Your task to perform on an android device: turn off picture-in-picture Image 0: 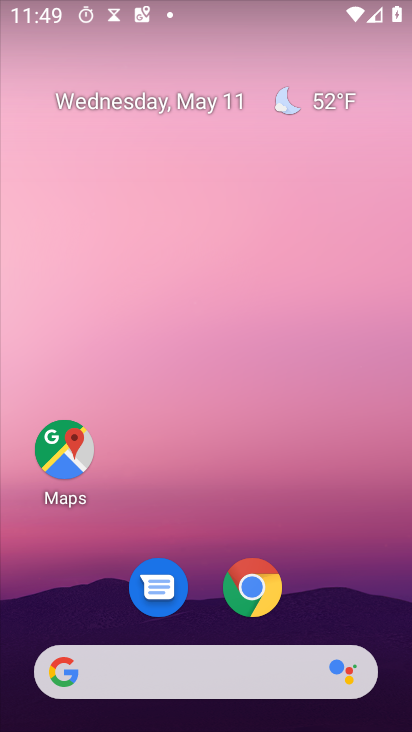
Step 0: drag from (262, 700) to (365, 287)
Your task to perform on an android device: turn off picture-in-picture Image 1: 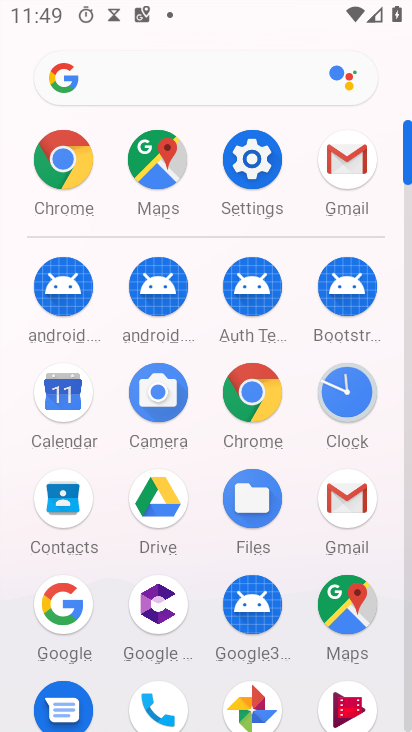
Step 1: click (252, 176)
Your task to perform on an android device: turn off picture-in-picture Image 2: 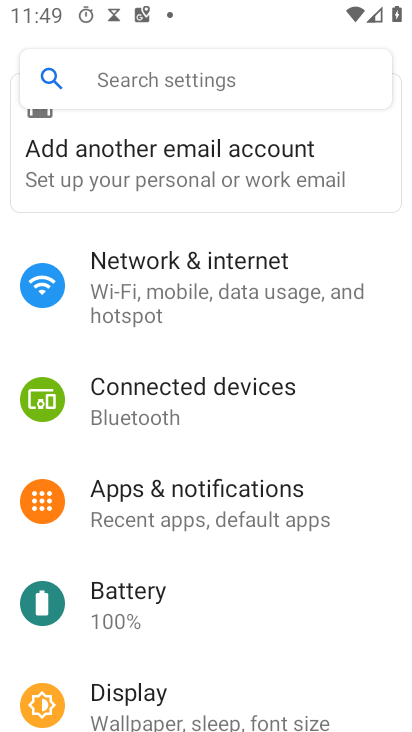
Step 2: click (139, 86)
Your task to perform on an android device: turn off picture-in-picture Image 3: 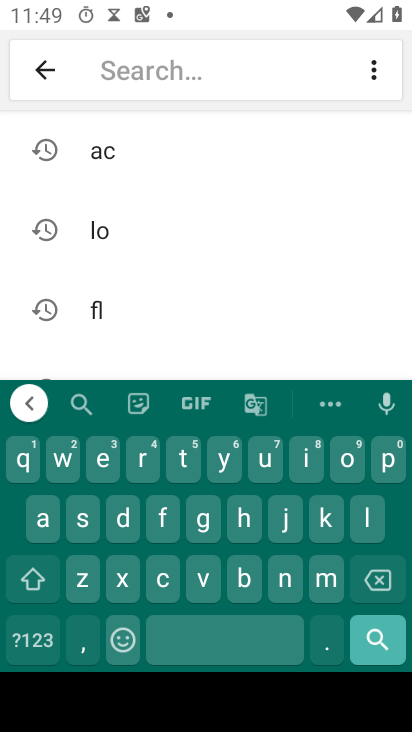
Step 3: click (389, 491)
Your task to perform on an android device: turn off picture-in-picture Image 4: 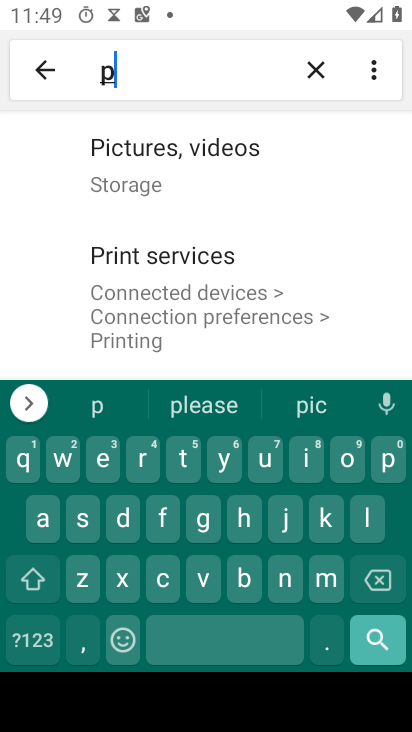
Step 4: click (303, 461)
Your task to perform on an android device: turn off picture-in-picture Image 5: 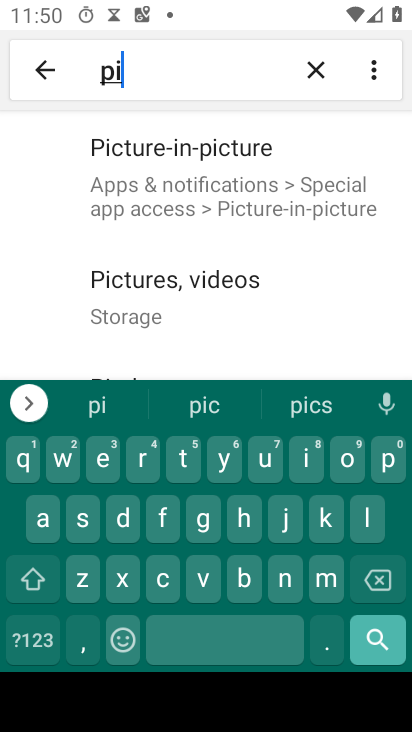
Step 5: click (203, 194)
Your task to perform on an android device: turn off picture-in-picture Image 6: 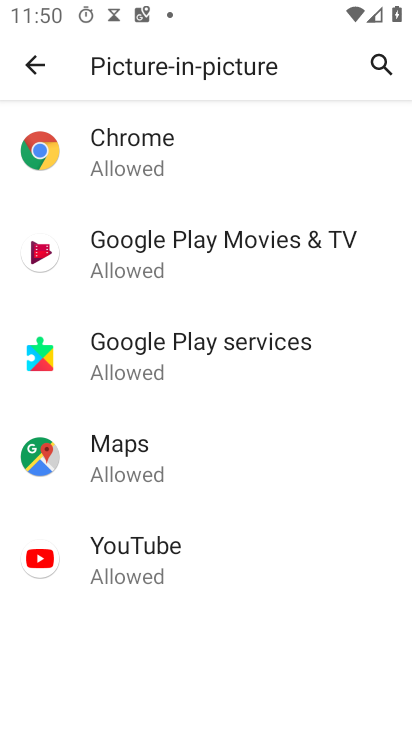
Step 6: task complete